Your task to perform on an android device: open device folders in google photos Image 0: 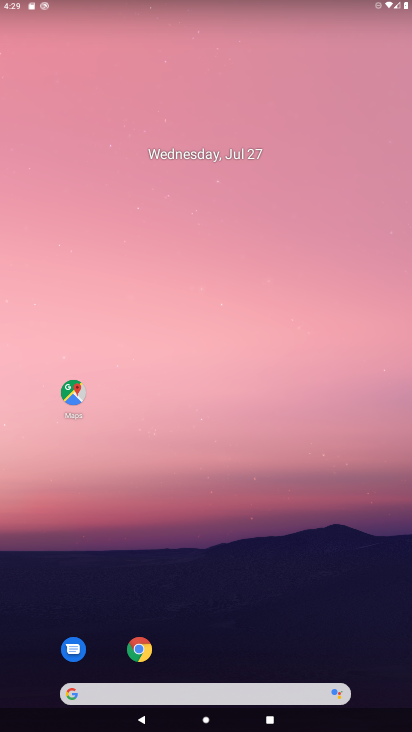
Step 0: drag from (242, 571) to (225, 1)
Your task to perform on an android device: open device folders in google photos Image 1: 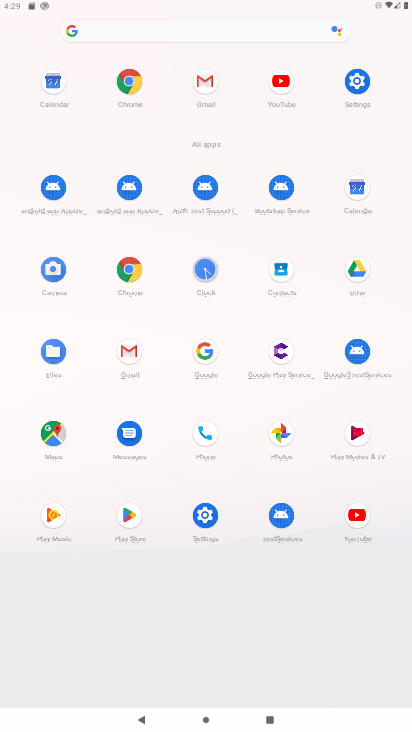
Step 1: click (289, 430)
Your task to perform on an android device: open device folders in google photos Image 2: 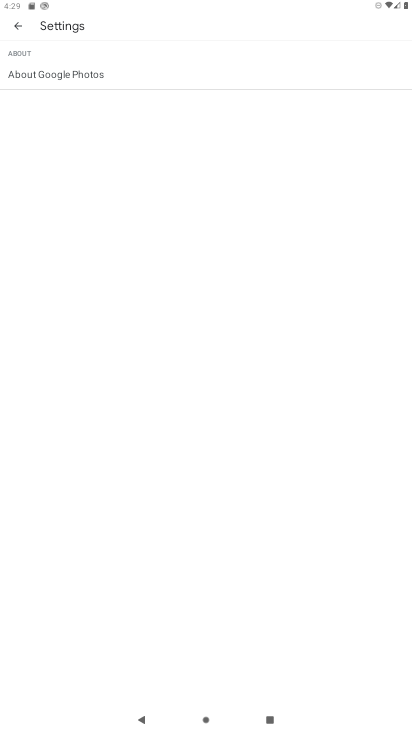
Step 2: click (24, 25)
Your task to perform on an android device: open device folders in google photos Image 3: 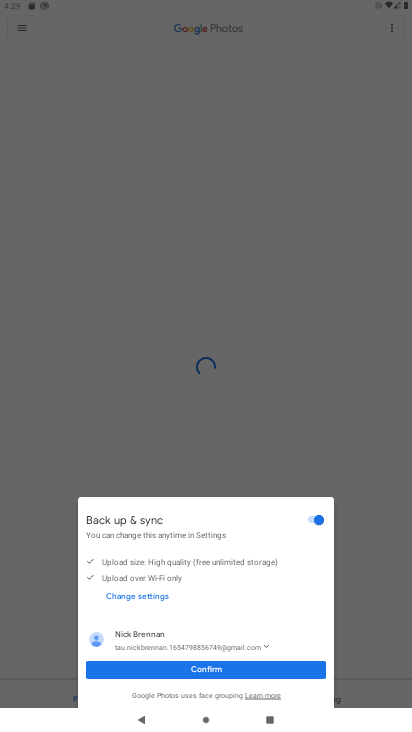
Step 3: click (263, 671)
Your task to perform on an android device: open device folders in google photos Image 4: 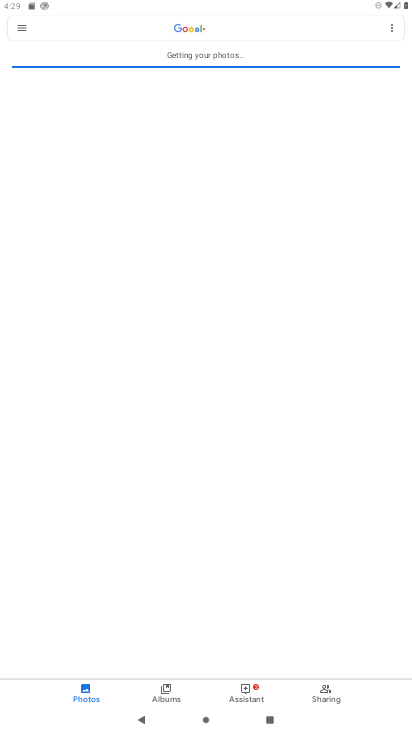
Step 4: click (19, 31)
Your task to perform on an android device: open device folders in google photos Image 5: 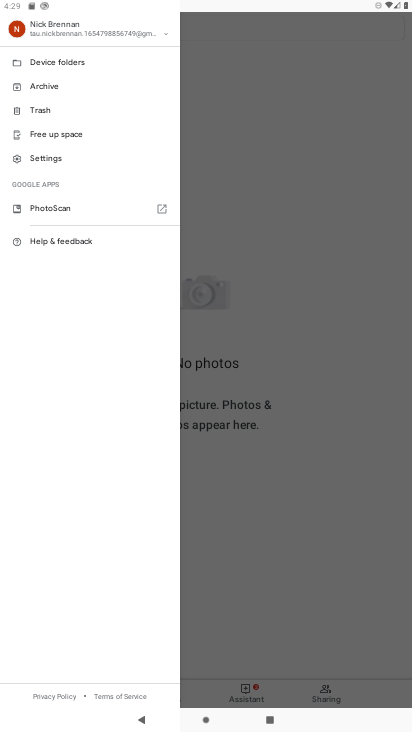
Step 5: click (47, 61)
Your task to perform on an android device: open device folders in google photos Image 6: 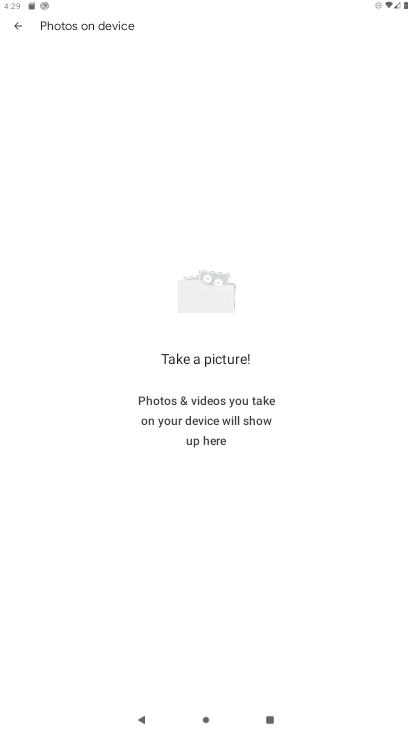
Step 6: task complete